Your task to perform on an android device: read, delete, or share a saved page in the chrome app Image 0: 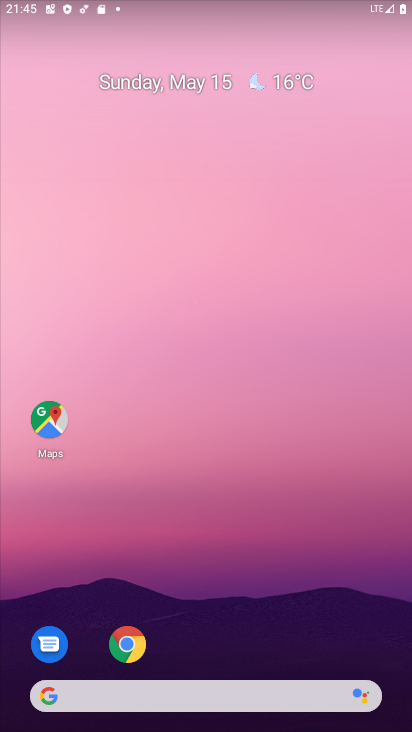
Step 0: click (120, 640)
Your task to perform on an android device: read, delete, or share a saved page in the chrome app Image 1: 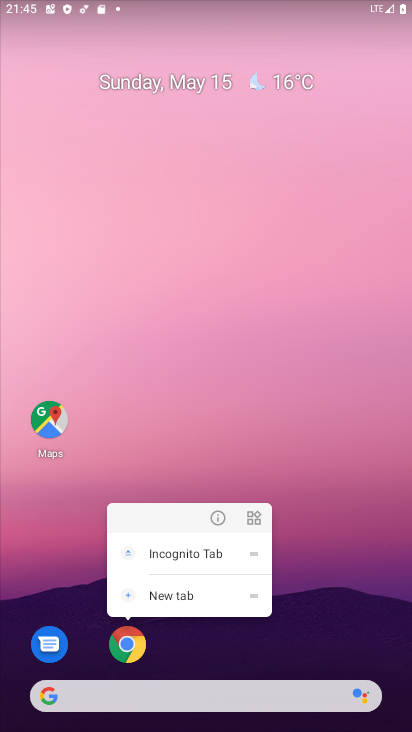
Step 1: click (124, 646)
Your task to perform on an android device: read, delete, or share a saved page in the chrome app Image 2: 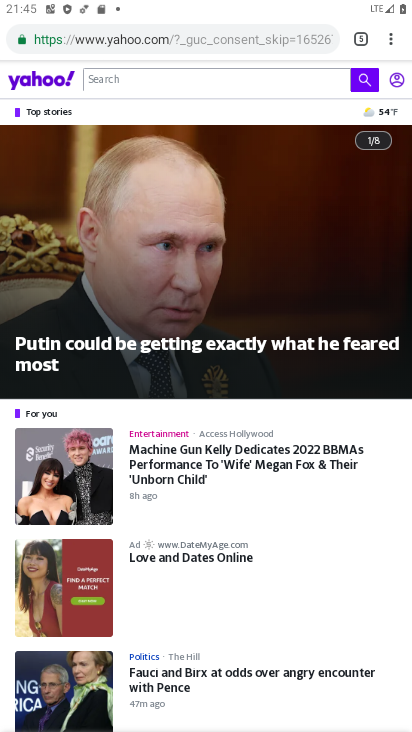
Step 2: drag from (395, 36) to (262, 248)
Your task to perform on an android device: read, delete, or share a saved page in the chrome app Image 3: 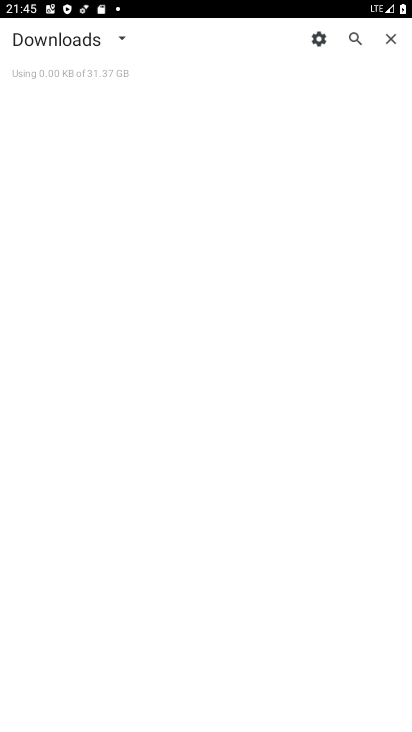
Step 3: click (121, 41)
Your task to perform on an android device: read, delete, or share a saved page in the chrome app Image 4: 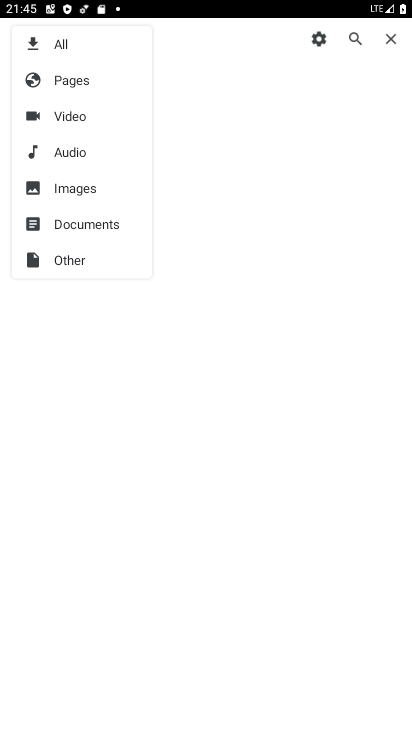
Step 4: click (73, 85)
Your task to perform on an android device: read, delete, or share a saved page in the chrome app Image 5: 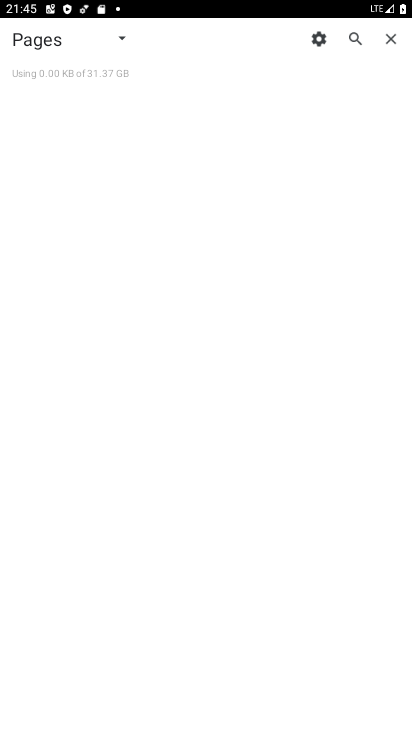
Step 5: task complete